Your task to perform on an android device: Open Youtube and go to the subscriptions tab Image 0: 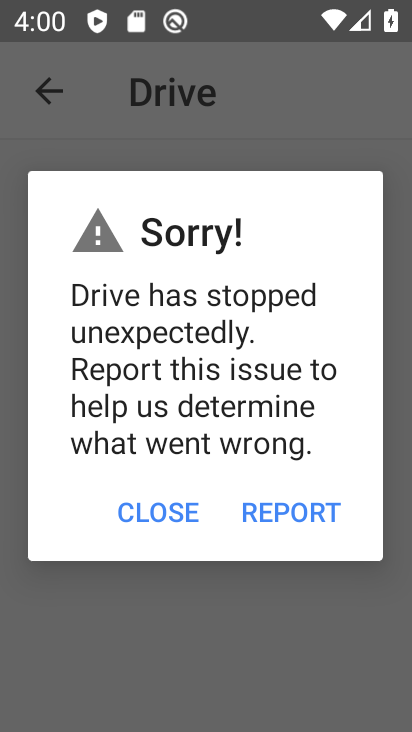
Step 0: press home button
Your task to perform on an android device: Open Youtube and go to the subscriptions tab Image 1: 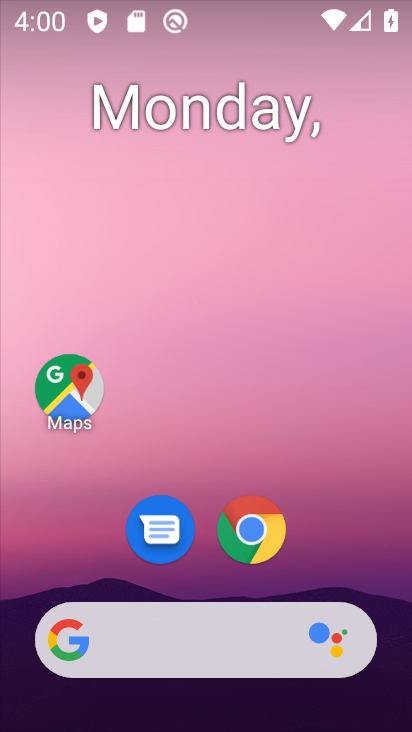
Step 1: drag from (194, 539) to (245, 7)
Your task to perform on an android device: Open Youtube and go to the subscriptions tab Image 2: 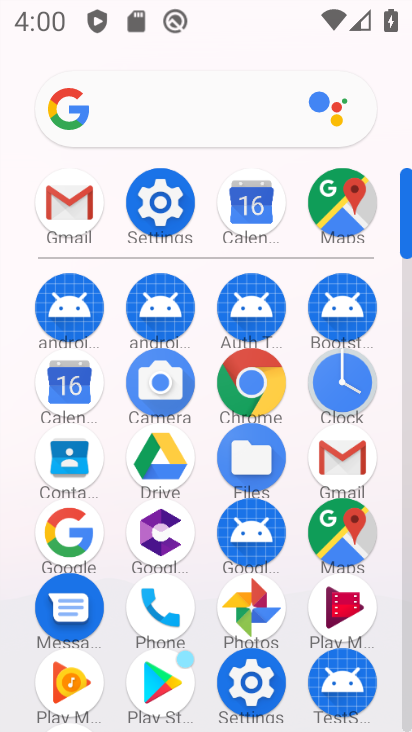
Step 2: drag from (220, 595) to (228, 331)
Your task to perform on an android device: Open Youtube and go to the subscriptions tab Image 3: 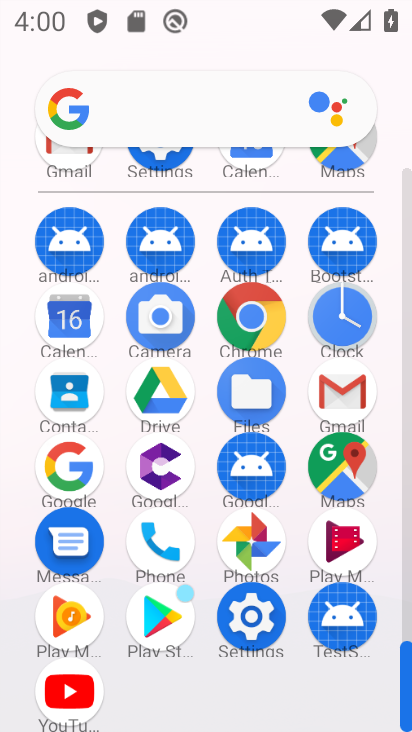
Step 3: click (71, 696)
Your task to perform on an android device: Open Youtube and go to the subscriptions tab Image 4: 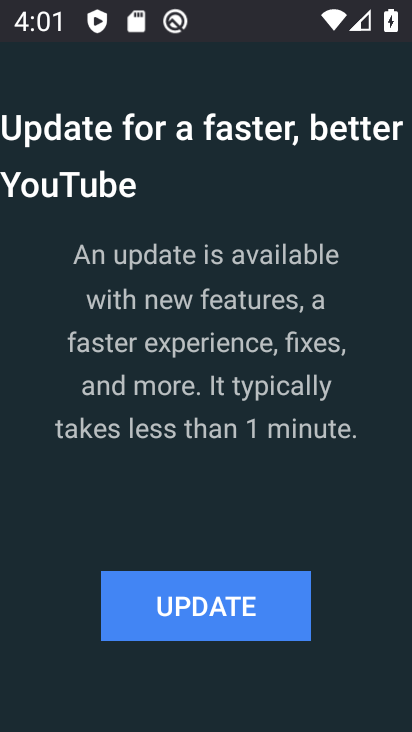
Step 4: click (238, 624)
Your task to perform on an android device: Open Youtube and go to the subscriptions tab Image 5: 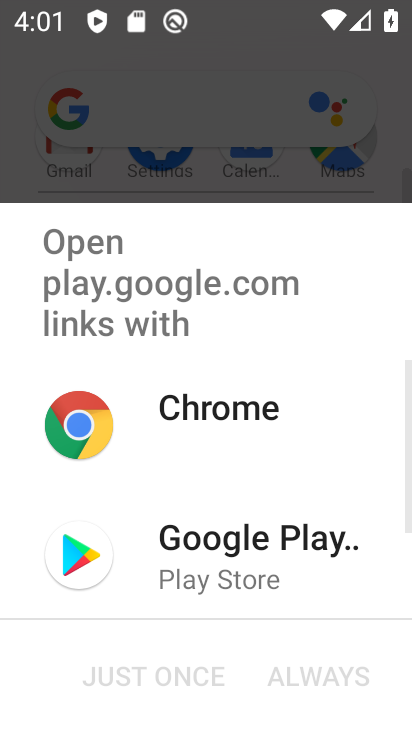
Step 5: click (171, 569)
Your task to perform on an android device: Open Youtube and go to the subscriptions tab Image 6: 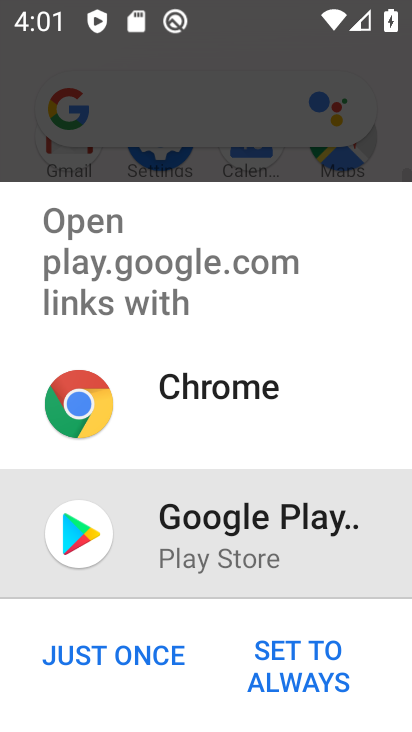
Step 6: click (129, 662)
Your task to perform on an android device: Open Youtube and go to the subscriptions tab Image 7: 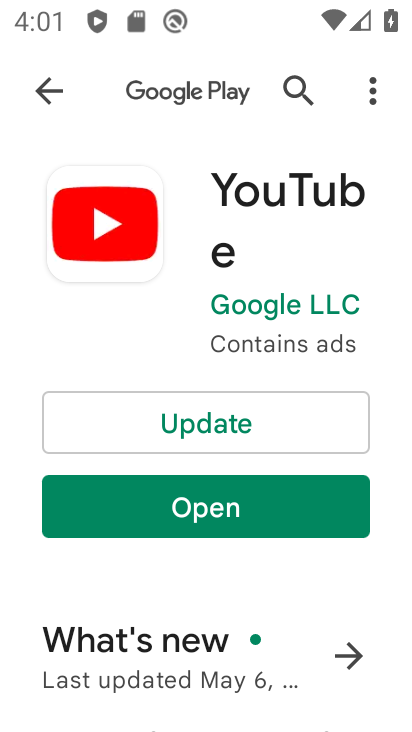
Step 7: click (200, 433)
Your task to perform on an android device: Open Youtube and go to the subscriptions tab Image 8: 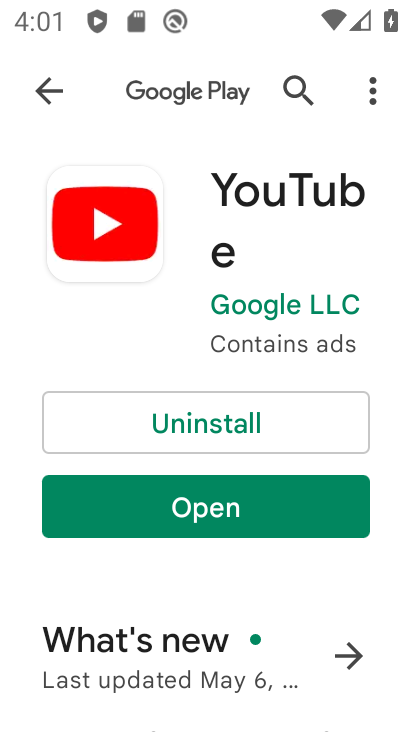
Step 8: click (217, 538)
Your task to perform on an android device: Open Youtube and go to the subscriptions tab Image 9: 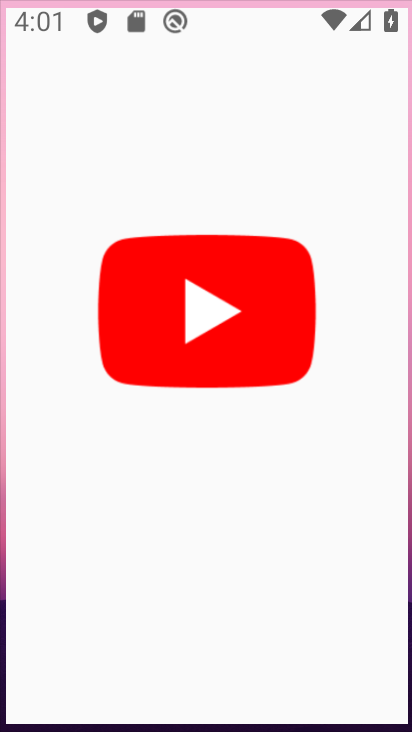
Step 9: click (229, 507)
Your task to perform on an android device: Open Youtube and go to the subscriptions tab Image 10: 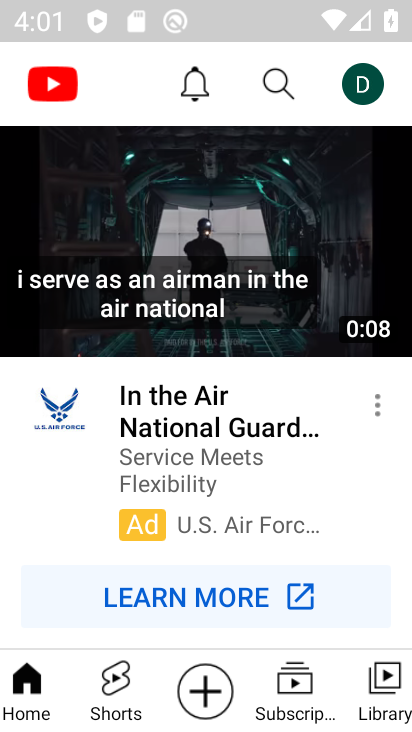
Step 10: click (302, 697)
Your task to perform on an android device: Open Youtube and go to the subscriptions tab Image 11: 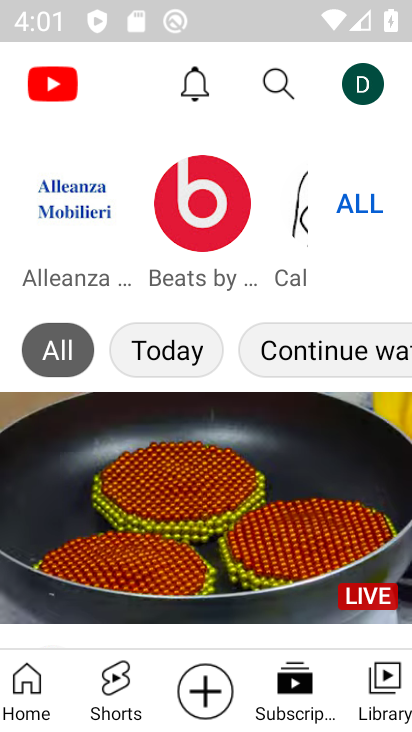
Step 11: task complete